Your task to perform on an android device: See recent photos Image 0: 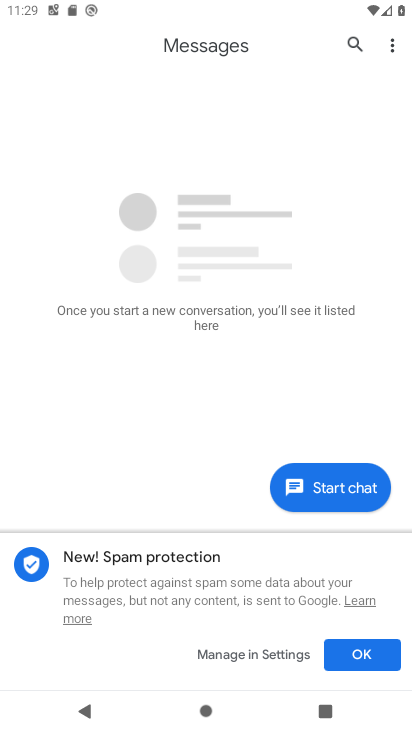
Step 0: click (131, 589)
Your task to perform on an android device: See recent photos Image 1: 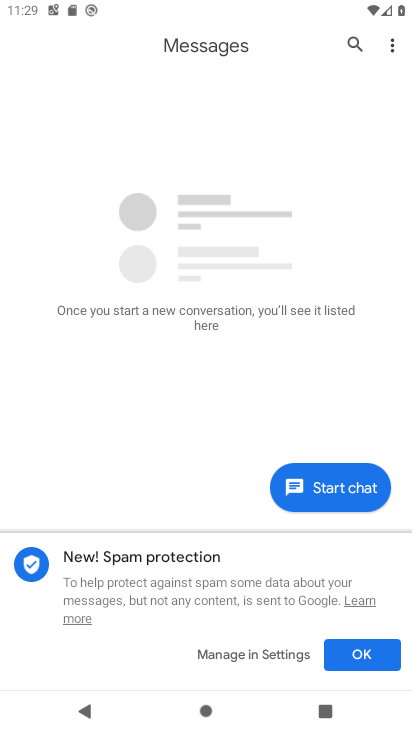
Step 1: press home button
Your task to perform on an android device: See recent photos Image 2: 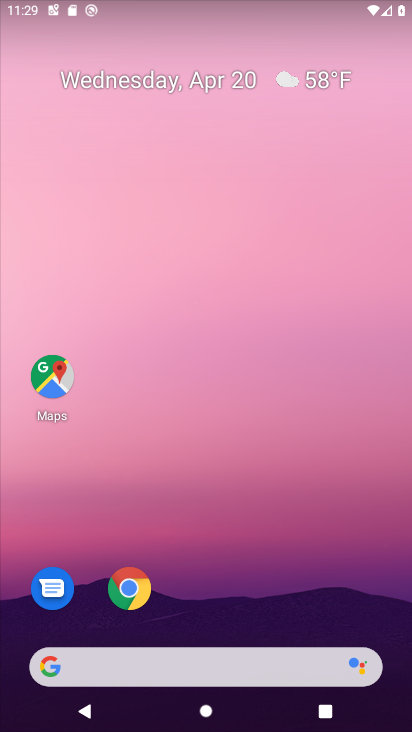
Step 2: drag from (216, 611) to (177, 49)
Your task to perform on an android device: See recent photos Image 3: 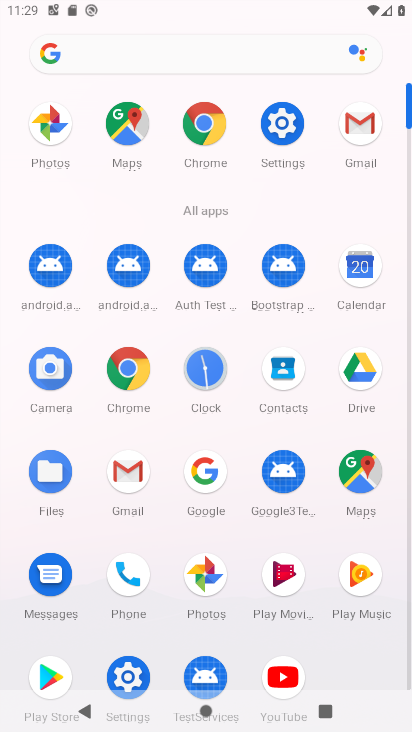
Step 3: click (53, 138)
Your task to perform on an android device: See recent photos Image 4: 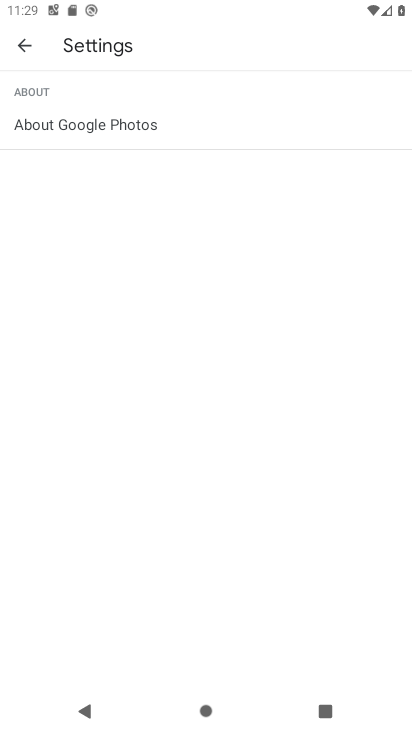
Step 4: click (31, 53)
Your task to perform on an android device: See recent photos Image 5: 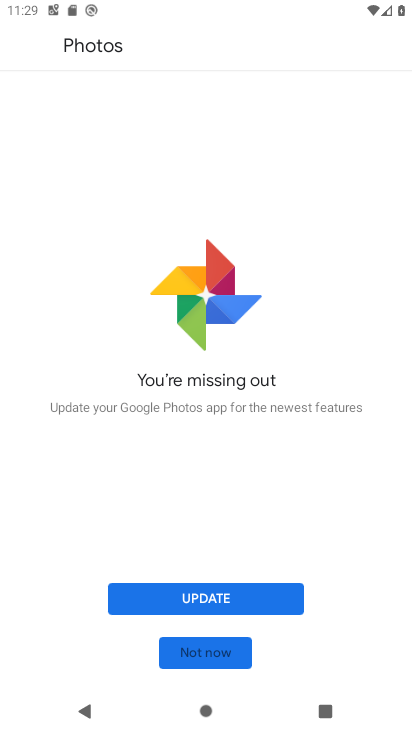
Step 5: click (218, 644)
Your task to perform on an android device: See recent photos Image 6: 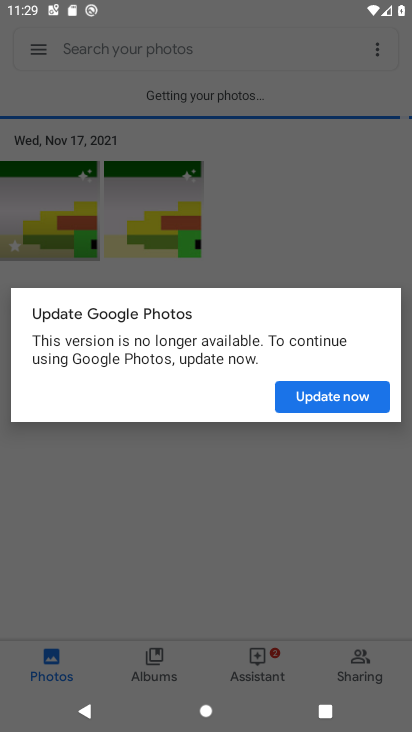
Step 6: click (358, 383)
Your task to perform on an android device: See recent photos Image 7: 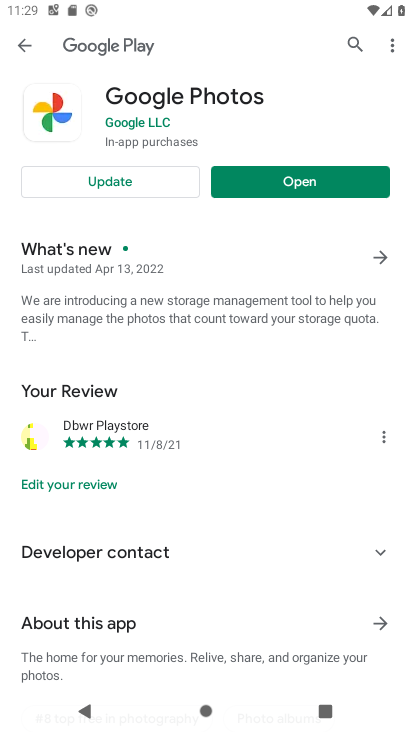
Step 7: click (250, 196)
Your task to perform on an android device: See recent photos Image 8: 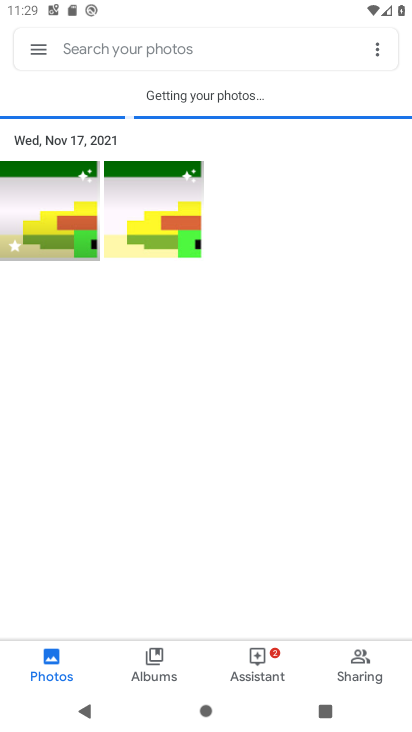
Step 8: task complete